Your task to perform on an android device: Open Android settings Image 0: 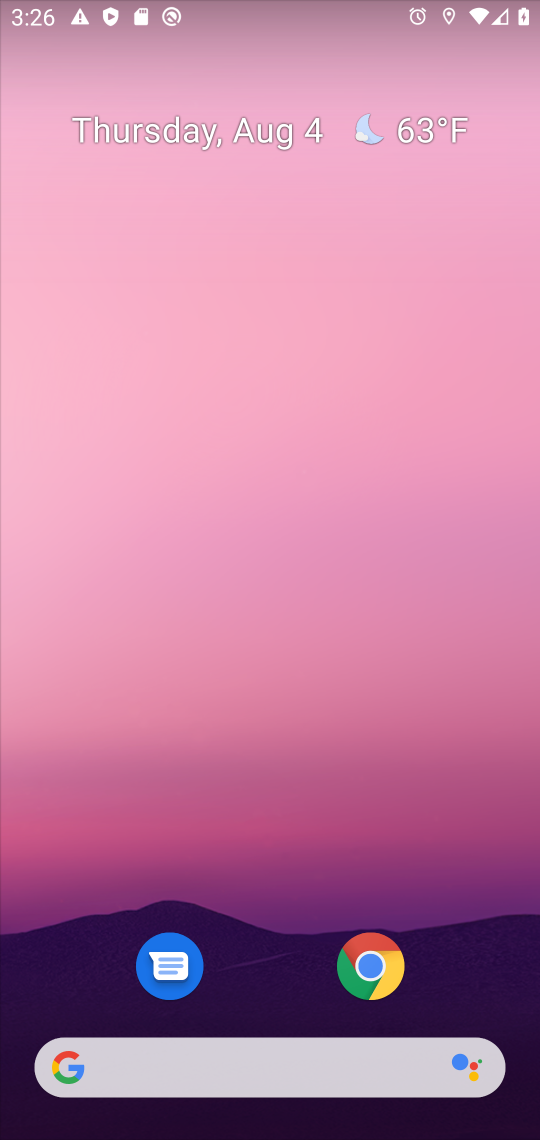
Step 0: press home button
Your task to perform on an android device: Open Android settings Image 1: 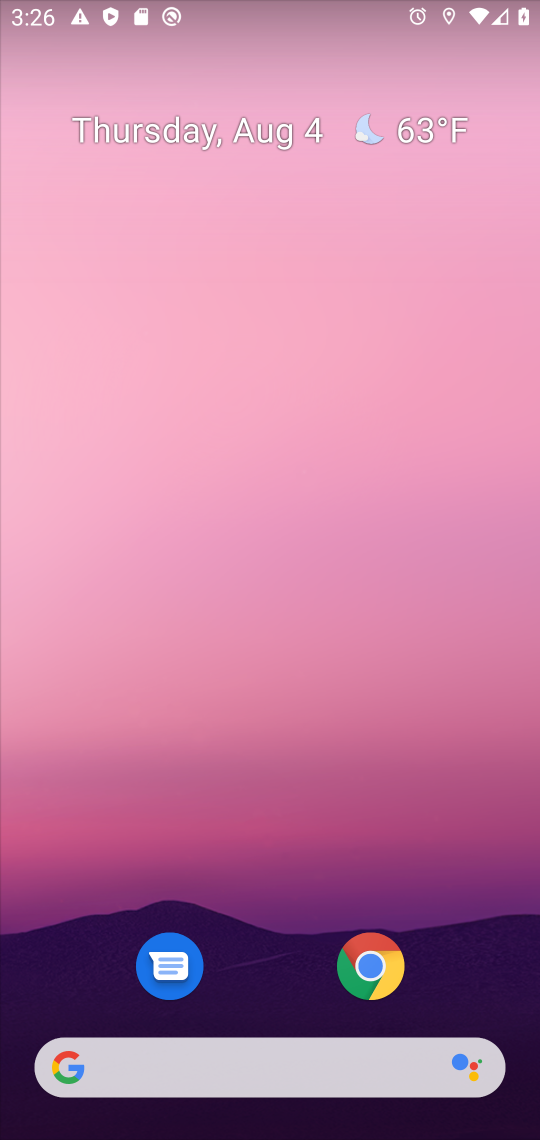
Step 1: drag from (260, 974) to (264, 63)
Your task to perform on an android device: Open Android settings Image 2: 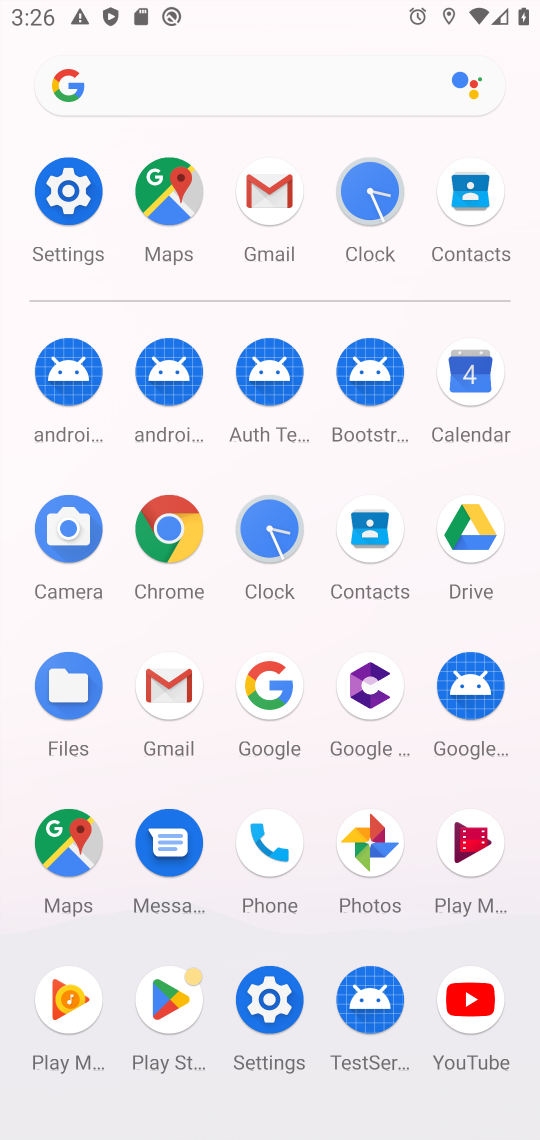
Step 2: click (72, 217)
Your task to perform on an android device: Open Android settings Image 3: 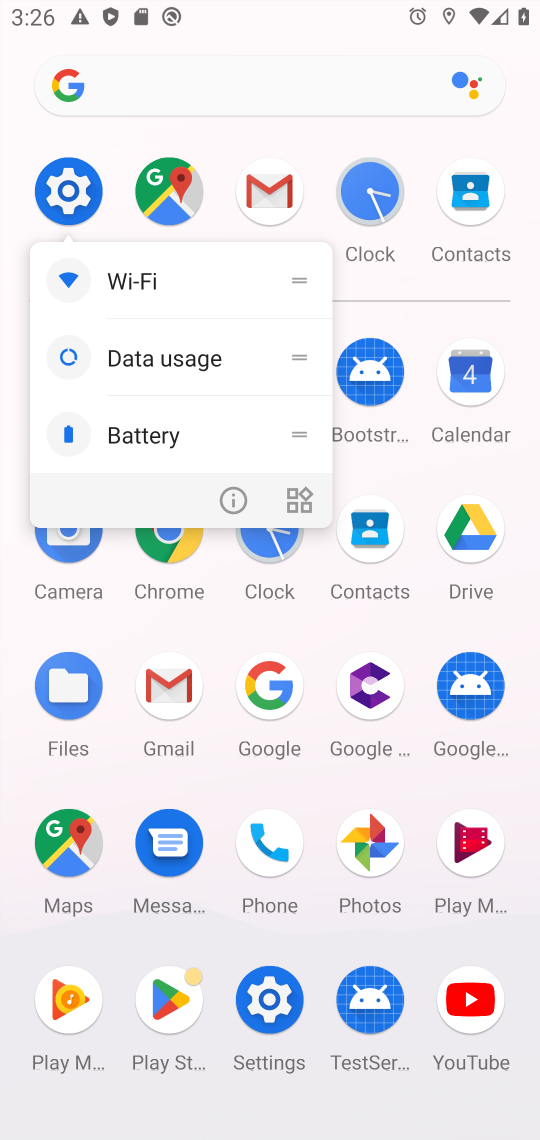
Step 3: click (98, 177)
Your task to perform on an android device: Open Android settings Image 4: 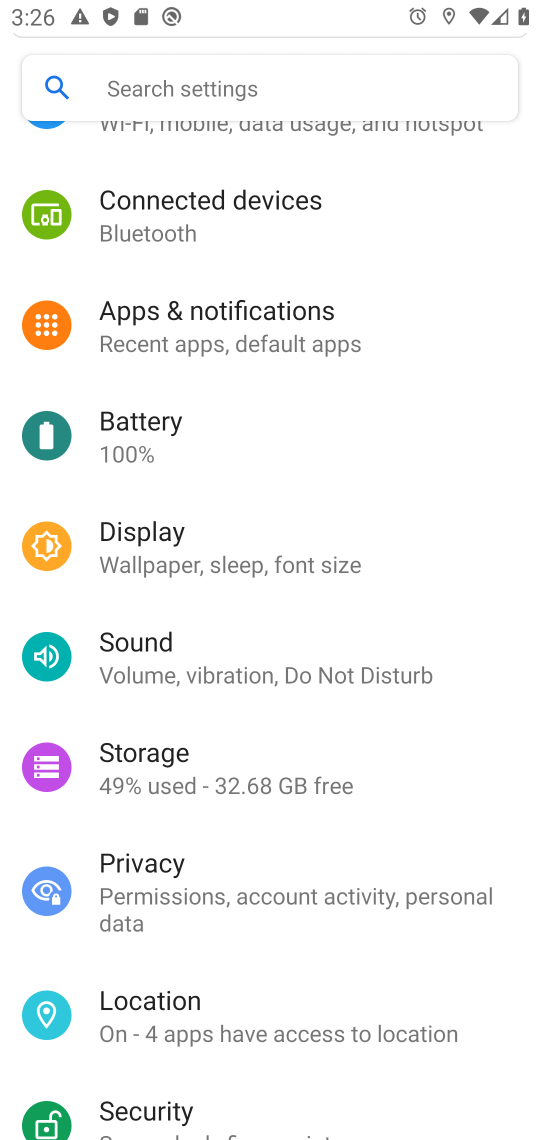
Step 4: task complete